Your task to perform on an android device: Search for vegetarian restaurants on Maps Image 0: 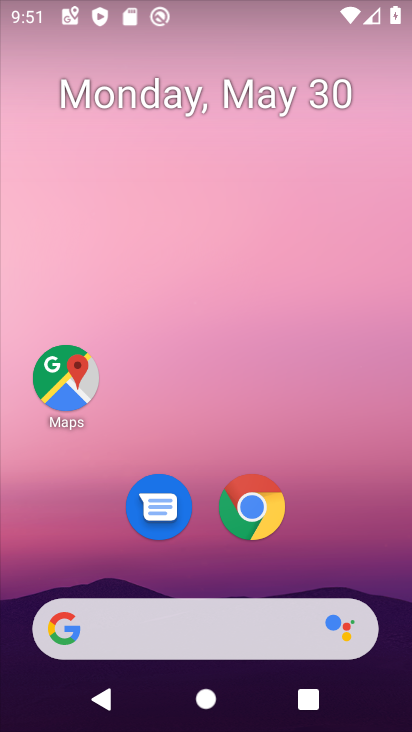
Step 0: click (79, 374)
Your task to perform on an android device: Search for vegetarian restaurants on Maps Image 1: 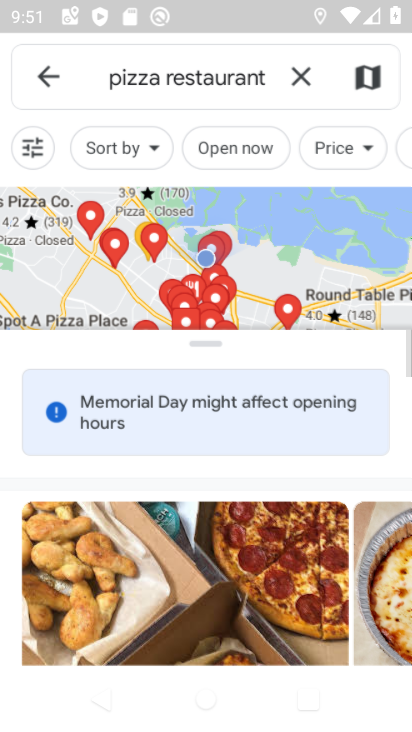
Step 1: click (287, 67)
Your task to perform on an android device: Search for vegetarian restaurants on Maps Image 2: 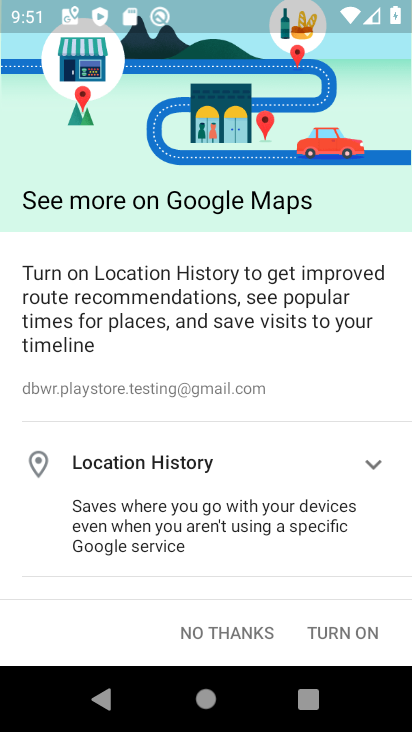
Step 2: click (220, 633)
Your task to perform on an android device: Search for vegetarian restaurants on Maps Image 3: 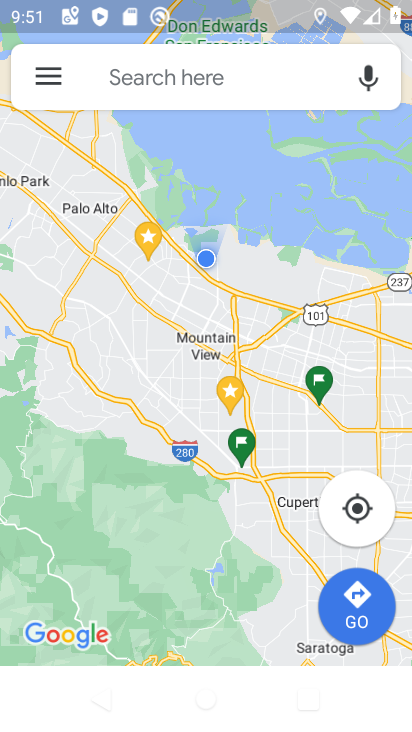
Step 3: click (142, 84)
Your task to perform on an android device: Search for vegetarian restaurants on Maps Image 4: 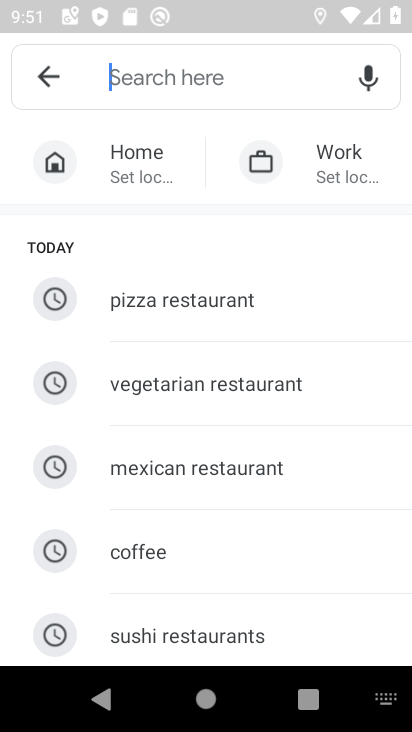
Step 4: click (277, 390)
Your task to perform on an android device: Search for vegetarian restaurants on Maps Image 5: 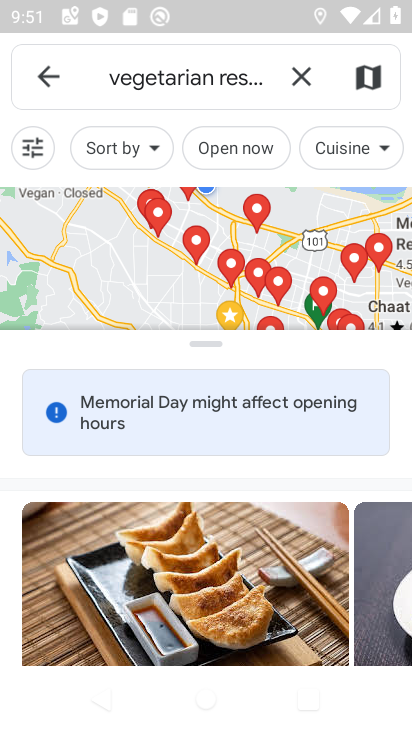
Step 5: task complete